Your task to perform on an android device: remove spam from my inbox in the gmail app Image 0: 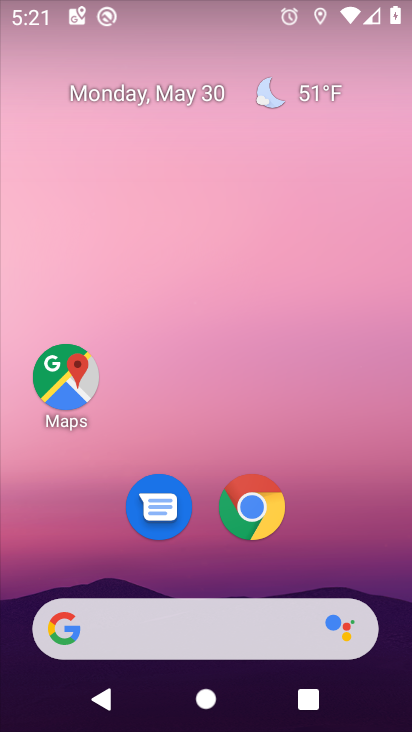
Step 0: press home button
Your task to perform on an android device: remove spam from my inbox in the gmail app Image 1: 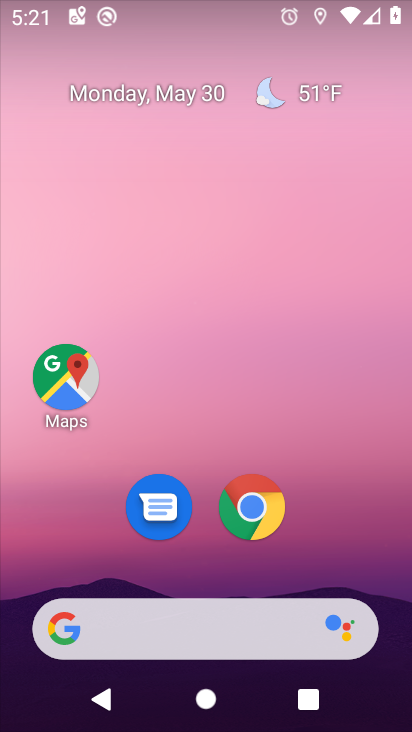
Step 1: drag from (298, 552) to (242, 20)
Your task to perform on an android device: remove spam from my inbox in the gmail app Image 2: 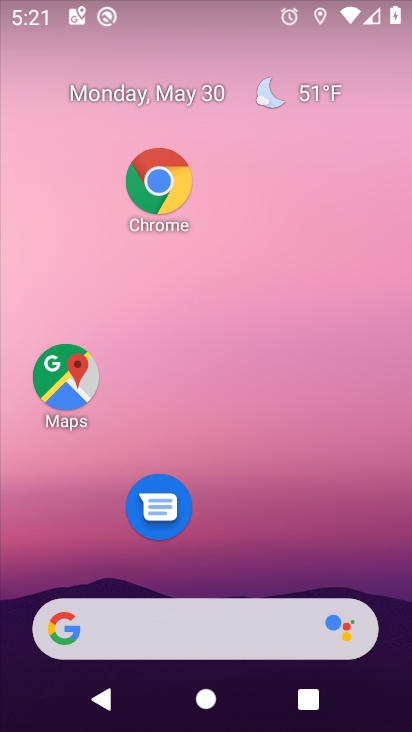
Step 2: drag from (361, 534) to (262, 167)
Your task to perform on an android device: remove spam from my inbox in the gmail app Image 3: 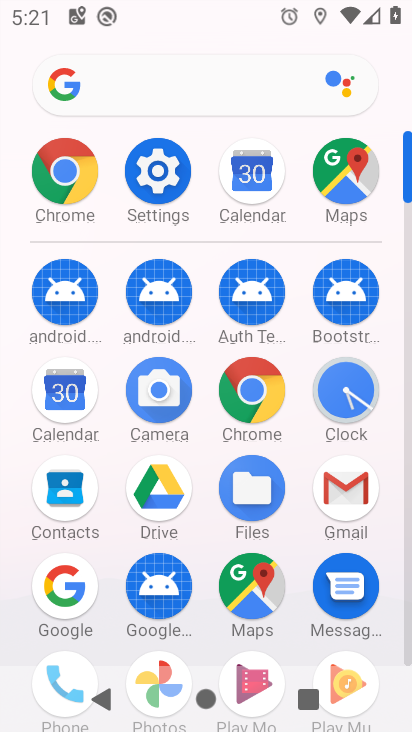
Step 3: click (334, 494)
Your task to perform on an android device: remove spam from my inbox in the gmail app Image 4: 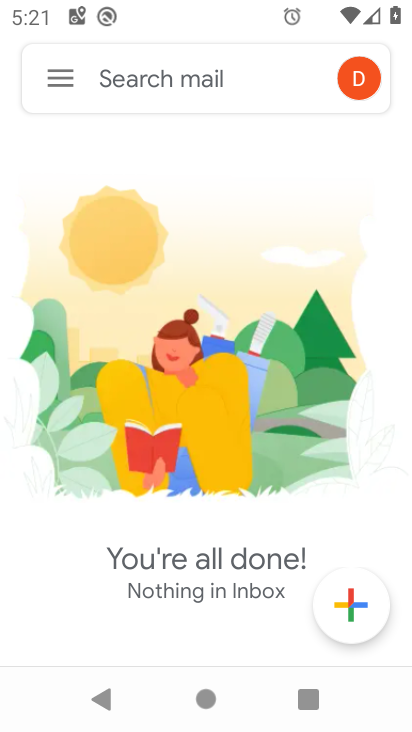
Step 4: task complete